Your task to perform on an android device: Open Google Image 0: 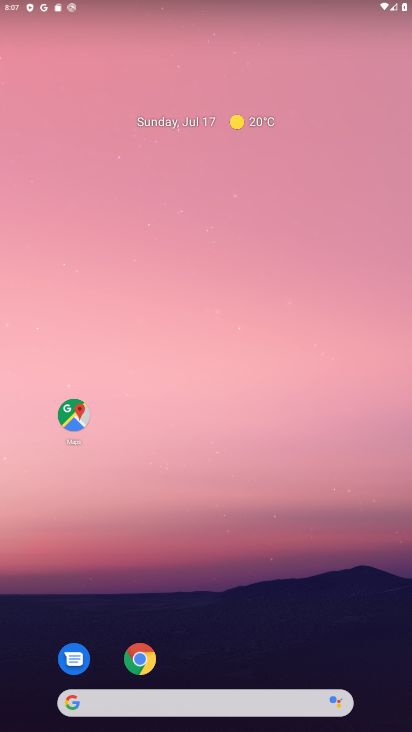
Step 0: drag from (340, 664) to (312, 81)
Your task to perform on an android device: Open Google Image 1: 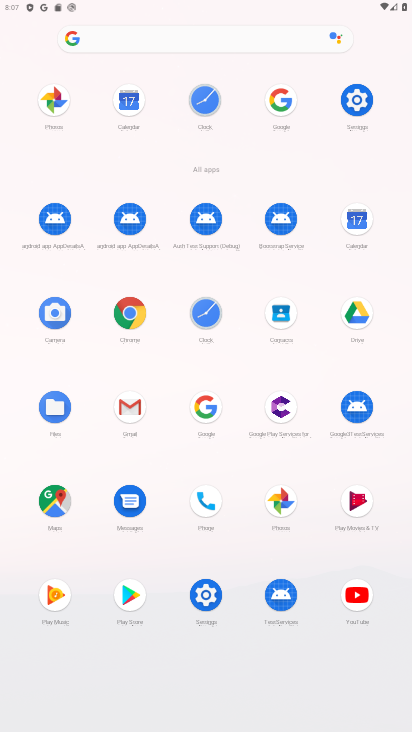
Step 1: click (283, 110)
Your task to perform on an android device: Open Google Image 2: 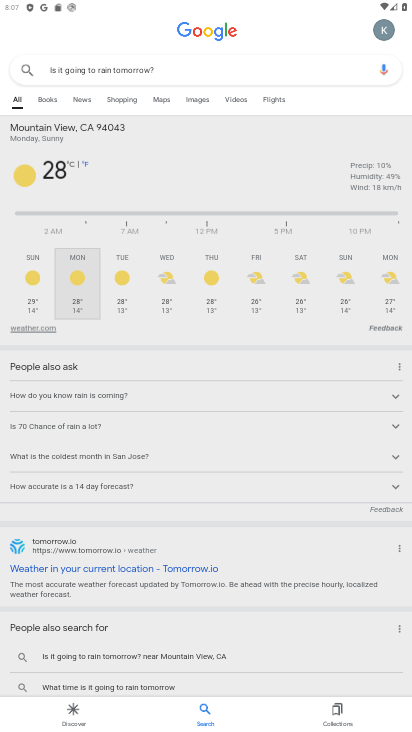
Step 2: task complete